Your task to perform on an android device: Show me productivity apps on the Play Store Image 0: 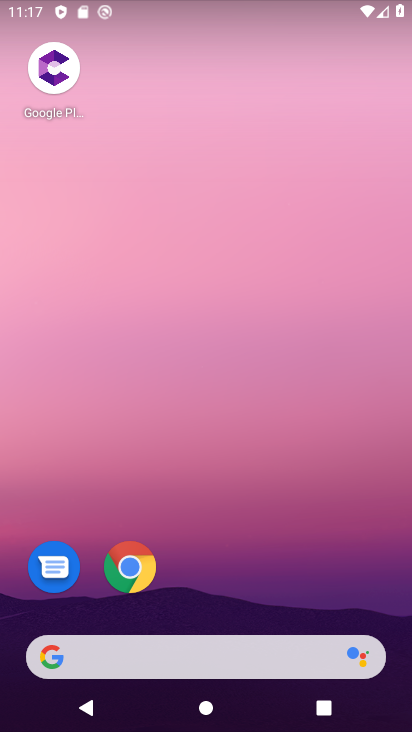
Step 0: drag from (382, 564) to (385, 95)
Your task to perform on an android device: Show me productivity apps on the Play Store Image 1: 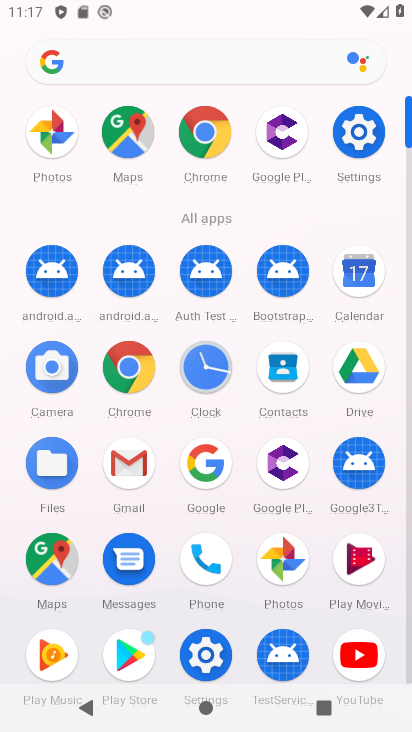
Step 1: click (130, 657)
Your task to perform on an android device: Show me productivity apps on the Play Store Image 2: 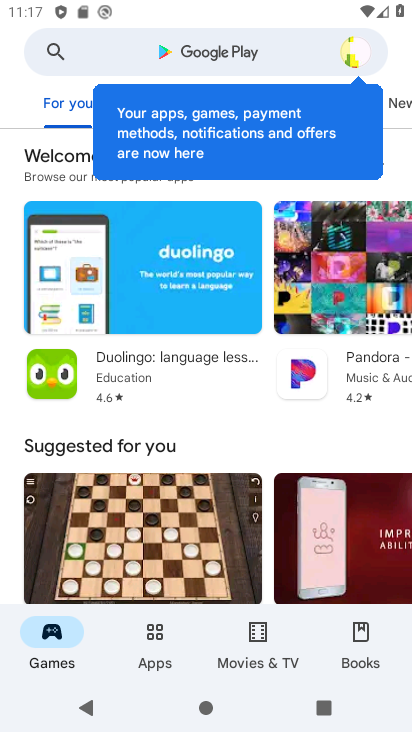
Step 2: click (156, 643)
Your task to perform on an android device: Show me productivity apps on the Play Store Image 3: 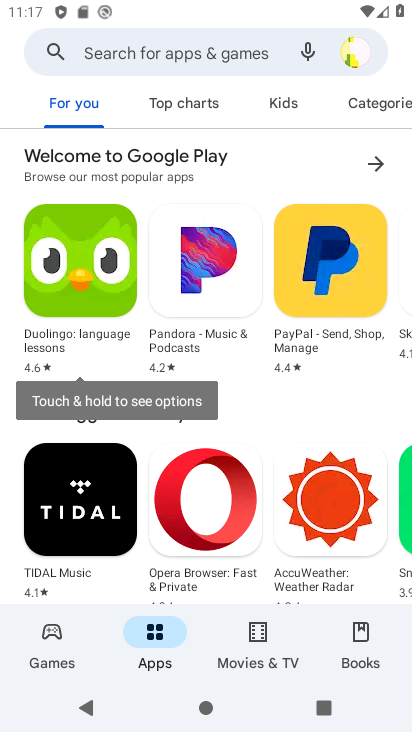
Step 3: click (390, 107)
Your task to perform on an android device: Show me productivity apps on the Play Store Image 4: 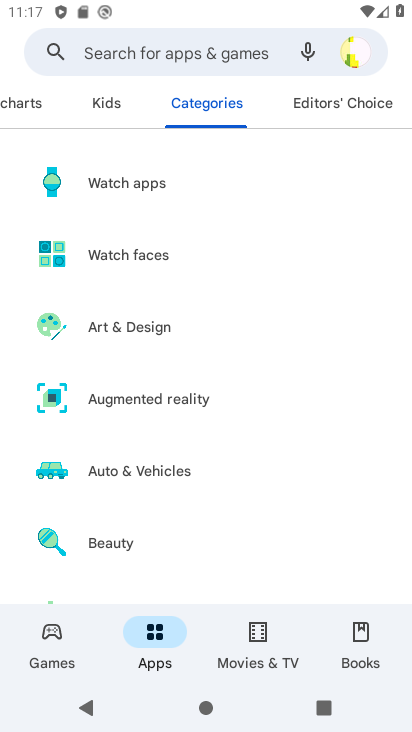
Step 4: drag from (293, 549) to (300, 257)
Your task to perform on an android device: Show me productivity apps on the Play Store Image 5: 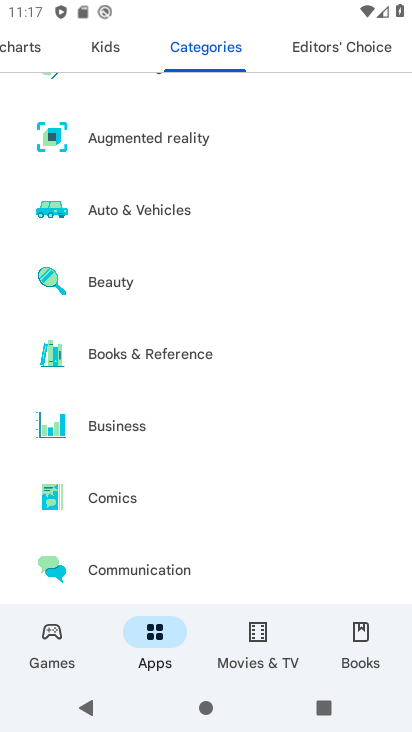
Step 5: drag from (276, 565) to (317, 280)
Your task to perform on an android device: Show me productivity apps on the Play Store Image 6: 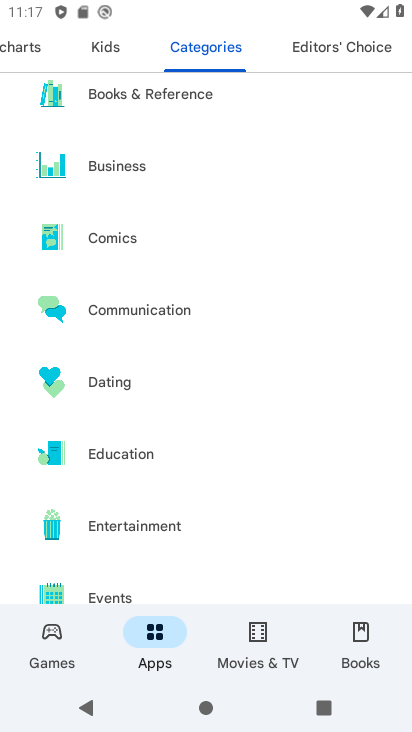
Step 6: drag from (233, 540) to (244, 253)
Your task to perform on an android device: Show me productivity apps on the Play Store Image 7: 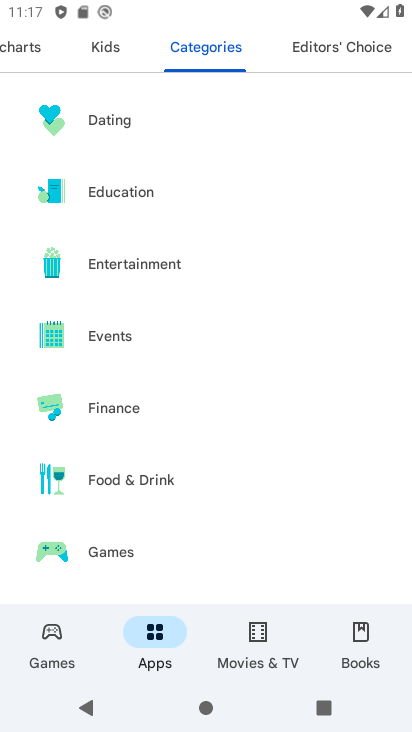
Step 7: drag from (185, 557) to (232, 308)
Your task to perform on an android device: Show me productivity apps on the Play Store Image 8: 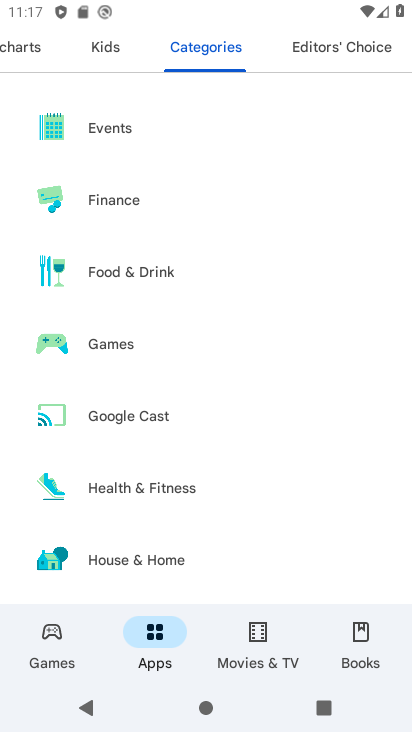
Step 8: drag from (223, 526) to (233, 204)
Your task to perform on an android device: Show me productivity apps on the Play Store Image 9: 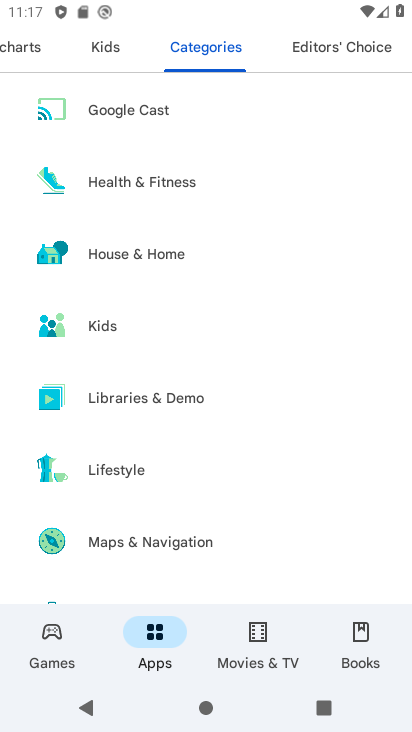
Step 9: drag from (234, 538) to (261, 327)
Your task to perform on an android device: Show me productivity apps on the Play Store Image 10: 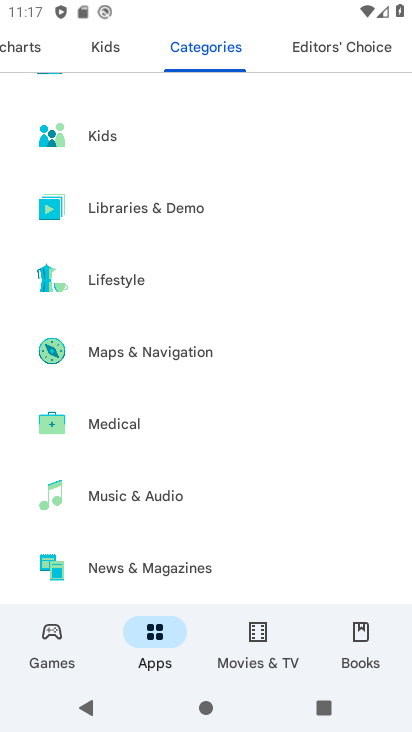
Step 10: drag from (247, 551) to (237, 307)
Your task to perform on an android device: Show me productivity apps on the Play Store Image 11: 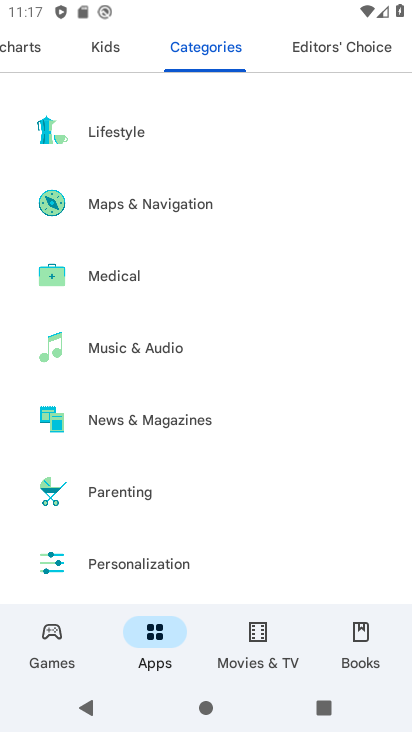
Step 11: drag from (203, 562) to (255, 293)
Your task to perform on an android device: Show me productivity apps on the Play Store Image 12: 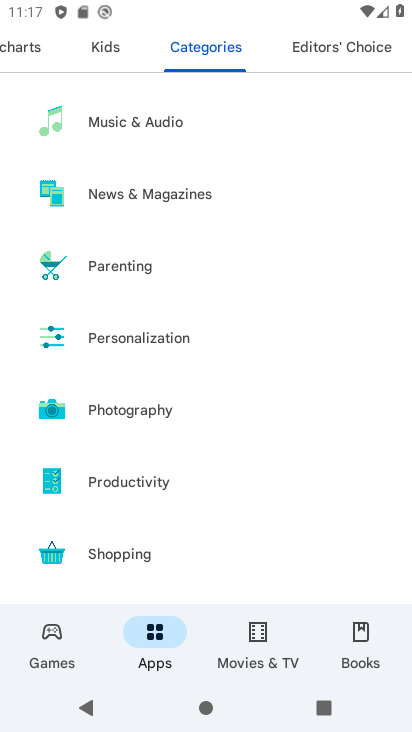
Step 12: click (134, 480)
Your task to perform on an android device: Show me productivity apps on the Play Store Image 13: 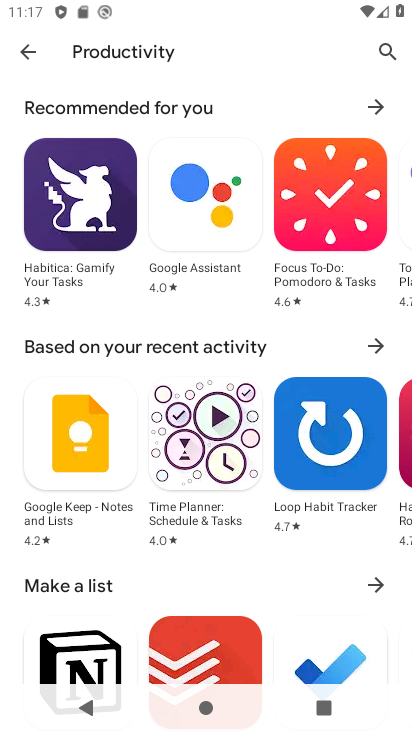
Step 13: task complete